Your task to perform on an android device: create a new album in the google photos Image 0: 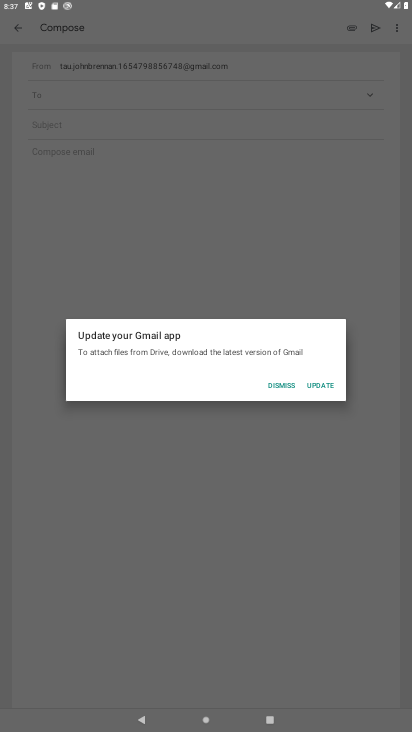
Step 0: press home button
Your task to perform on an android device: create a new album in the google photos Image 1: 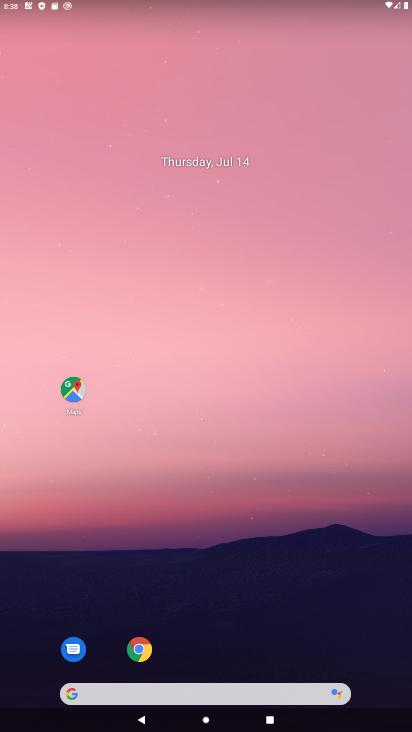
Step 1: drag from (179, 715) to (122, 110)
Your task to perform on an android device: create a new album in the google photos Image 2: 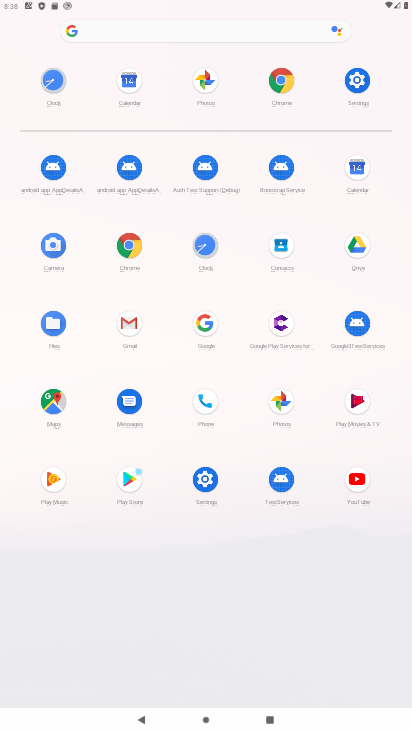
Step 2: click (282, 403)
Your task to perform on an android device: create a new album in the google photos Image 3: 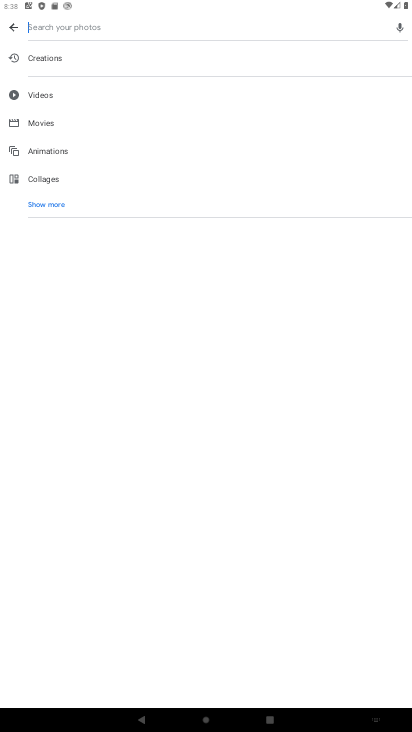
Step 3: click (17, 27)
Your task to perform on an android device: create a new album in the google photos Image 4: 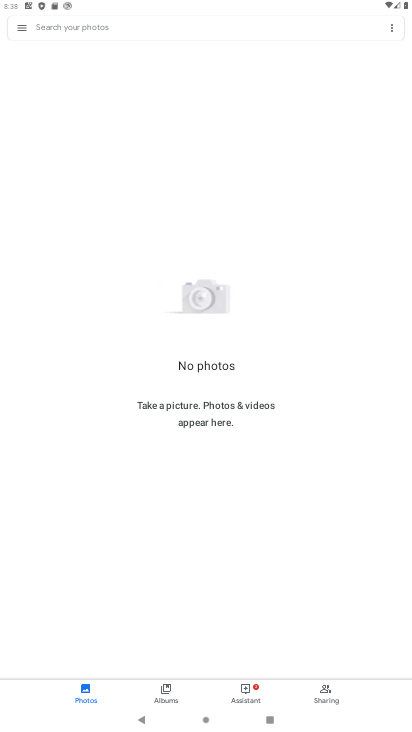
Step 4: task complete